Your task to perform on an android device: change keyboard looks Image 0: 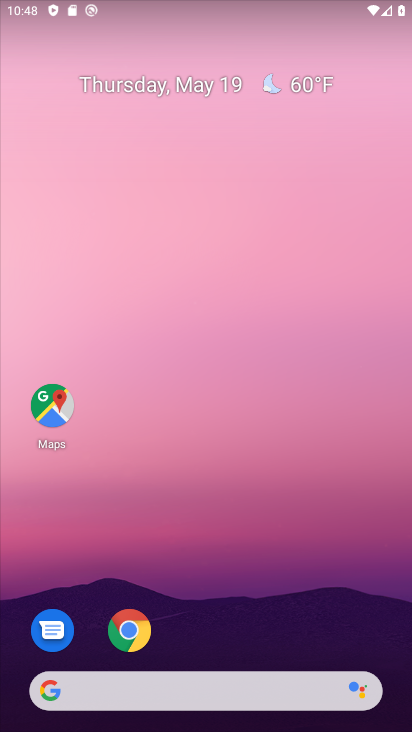
Step 0: drag from (268, 605) to (226, 210)
Your task to perform on an android device: change keyboard looks Image 1: 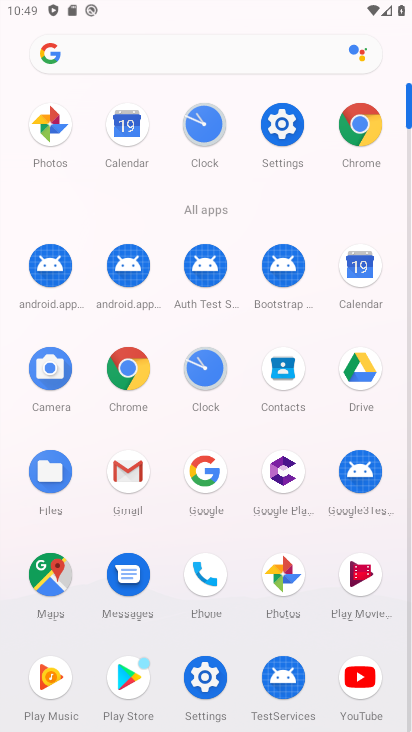
Step 1: click (289, 129)
Your task to perform on an android device: change keyboard looks Image 2: 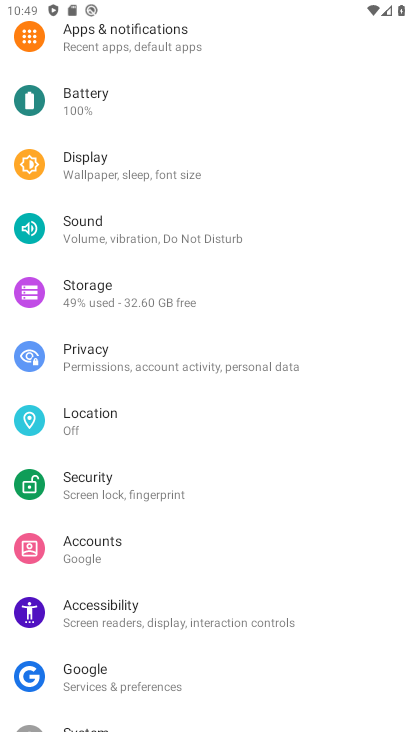
Step 2: drag from (250, 661) to (253, 262)
Your task to perform on an android device: change keyboard looks Image 3: 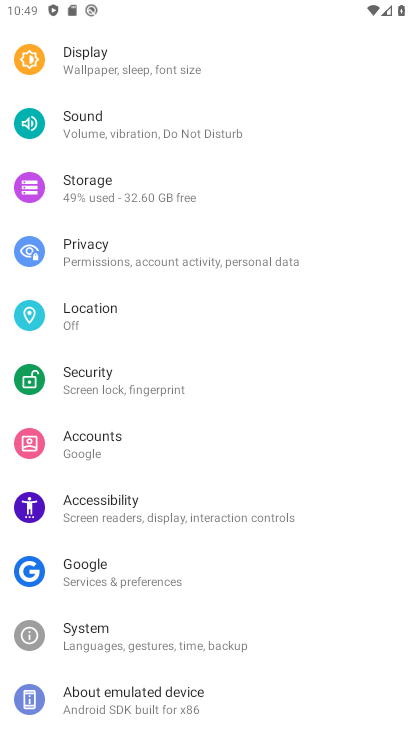
Step 3: click (248, 633)
Your task to perform on an android device: change keyboard looks Image 4: 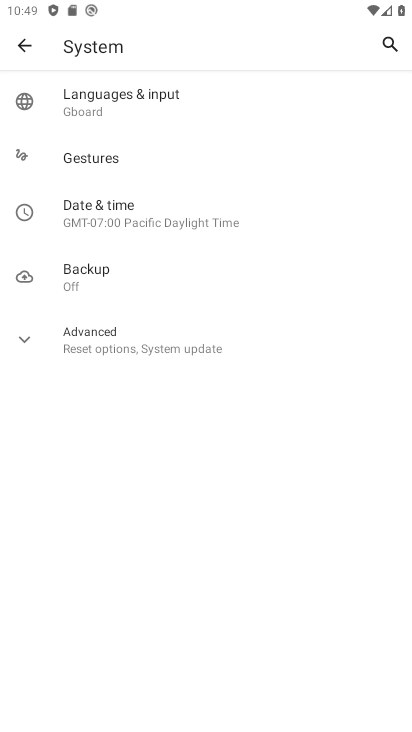
Step 4: click (248, 96)
Your task to perform on an android device: change keyboard looks Image 5: 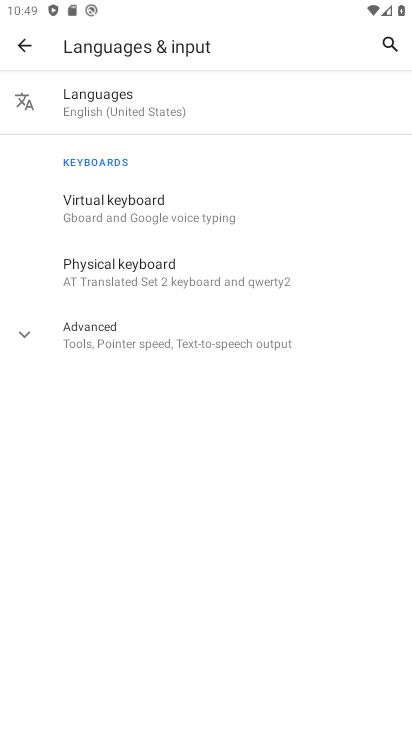
Step 5: click (217, 201)
Your task to perform on an android device: change keyboard looks Image 6: 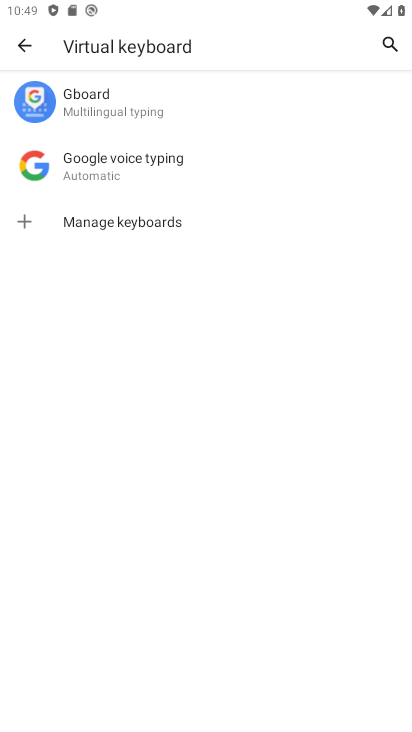
Step 6: click (222, 103)
Your task to perform on an android device: change keyboard looks Image 7: 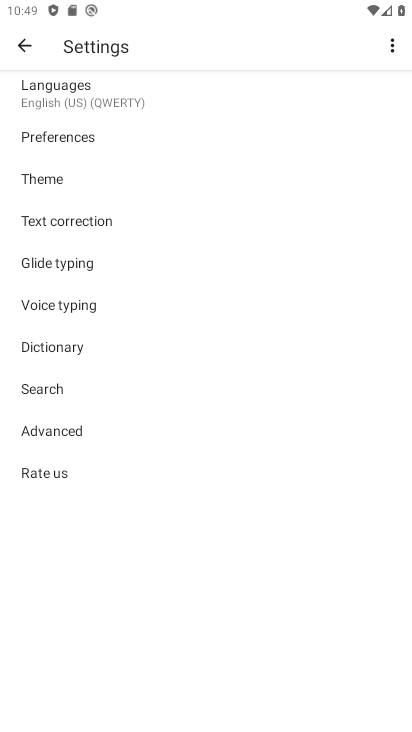
Step 7: click (151, 175)
Your task to perform on an android device: change keyboard looks Image 8: 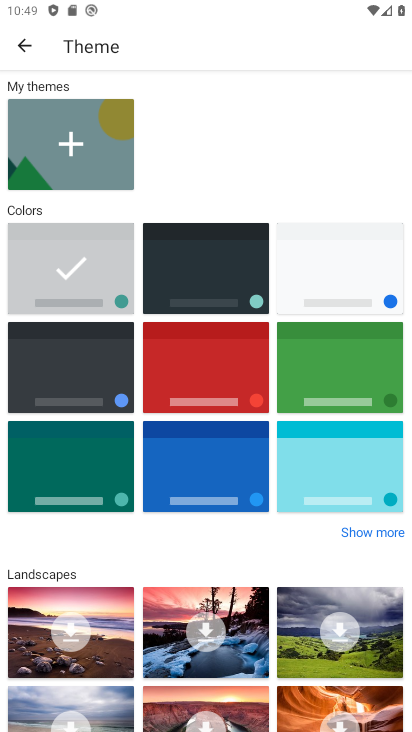
Step 8: click (184, 269)
Your task to perform on an android device: change keyboard looks Image 9: 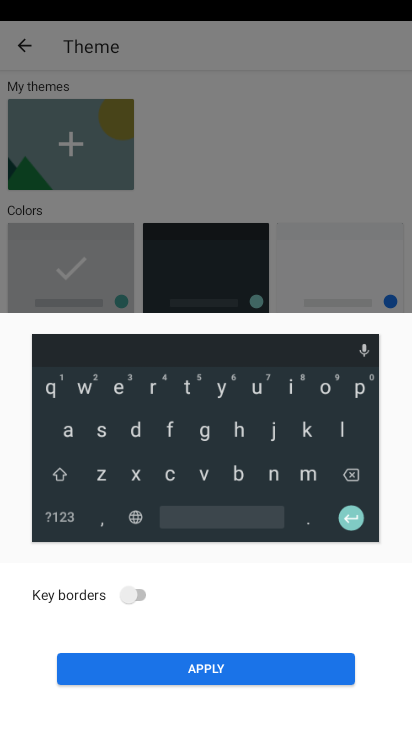
Step 9: click (253, 661)
Your task to perform on an android device: change keyboard looks Image 10: 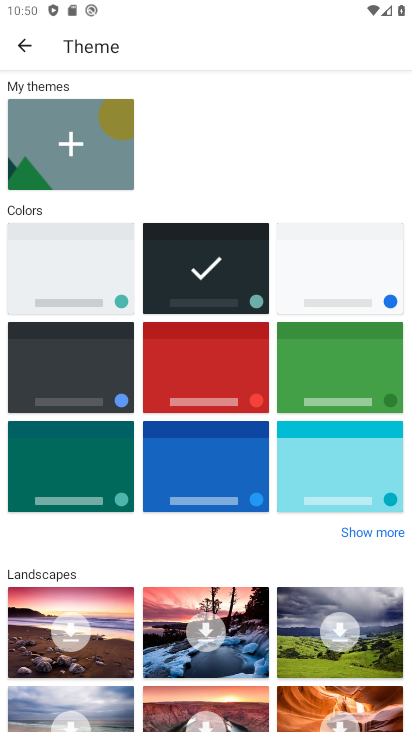
Step 10: task complete